Your task to perform on an android device: open app "Calculator" Image 0: 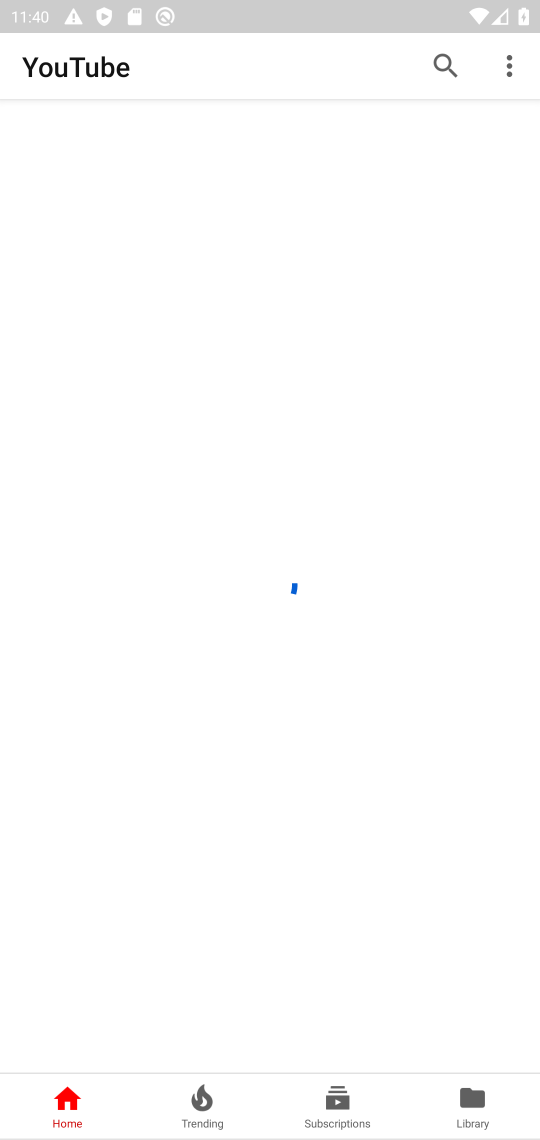
Step 0: press home button
Your task to perform on an android device: open app "Calculator" Image 1: 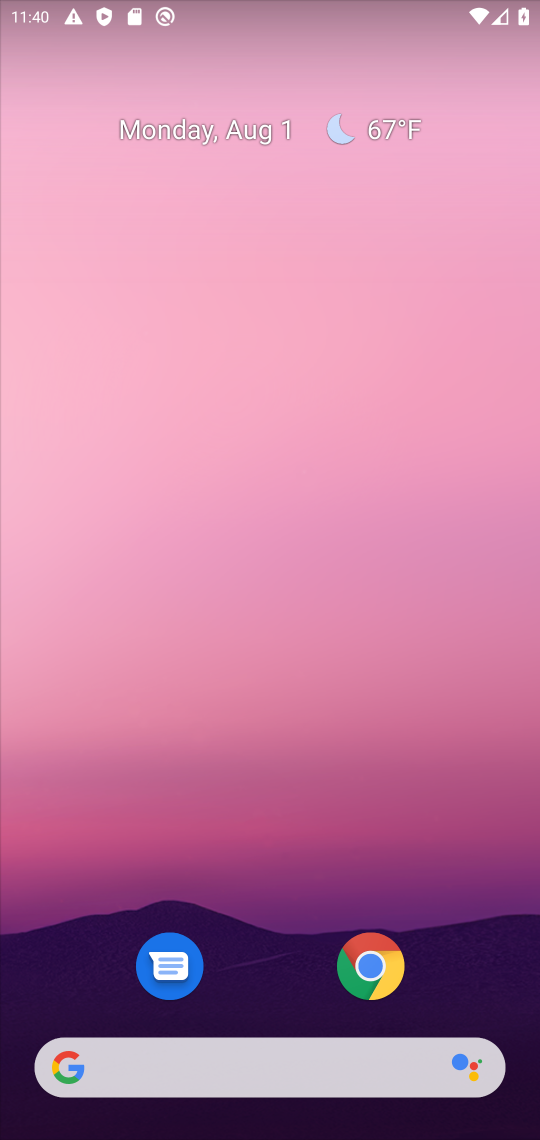
Step 1: drag from (455, 852) to (530, 15)
Your task to perform on an android device: open app "Calculator" Image 2: 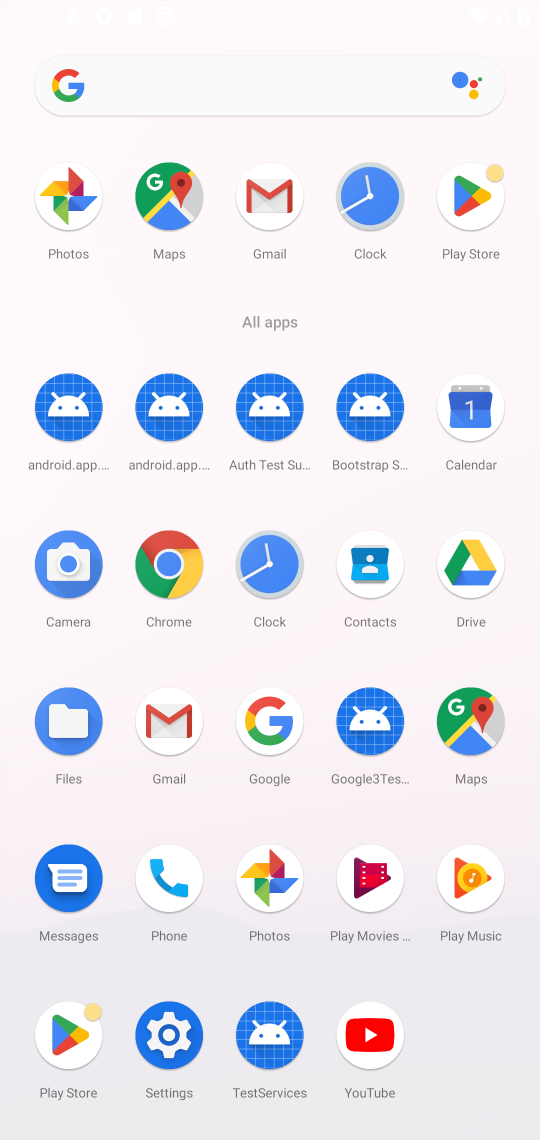
Step 2: click (463, 197)
Your task to perform on an android device: open app "Calculator" Image 3: 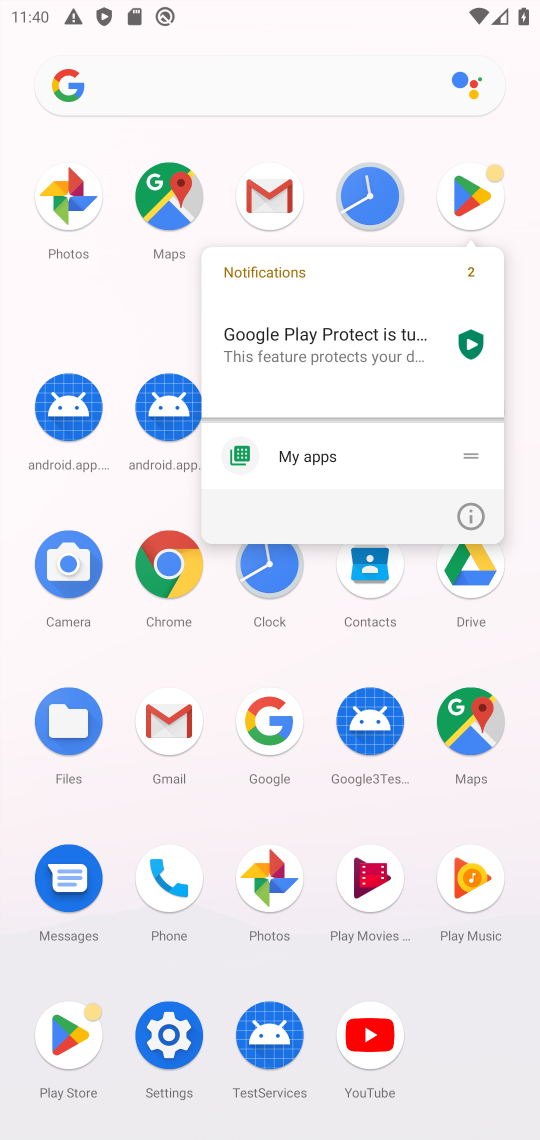
Step 3: click (493, 176)
Your task to perform on an android device: open app "Calculator" Image 4: 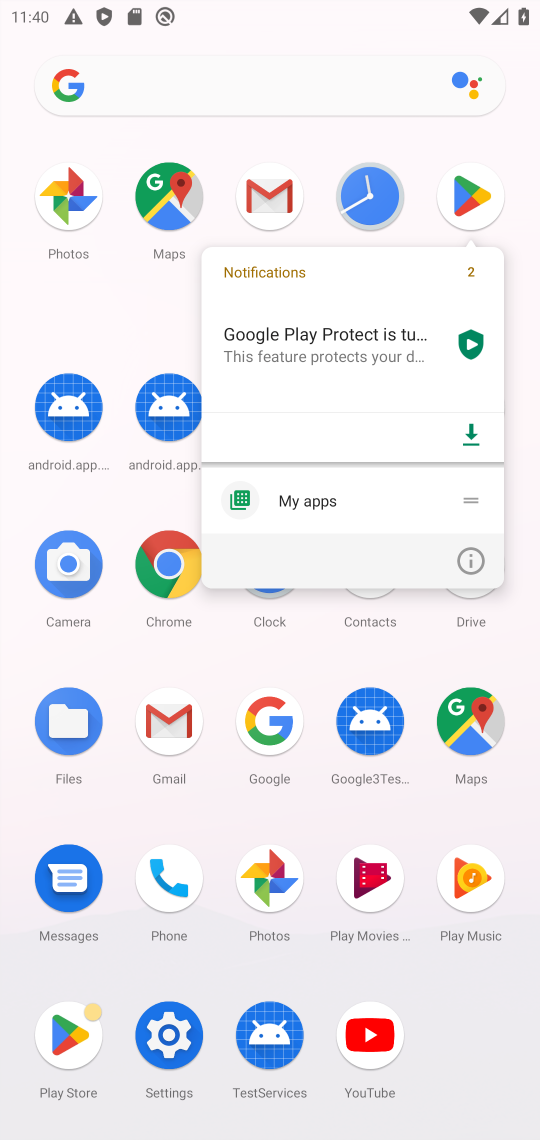
Step 4: click (473, 200)
Your task to perform on an android device: open app "Calculator" Image 5: 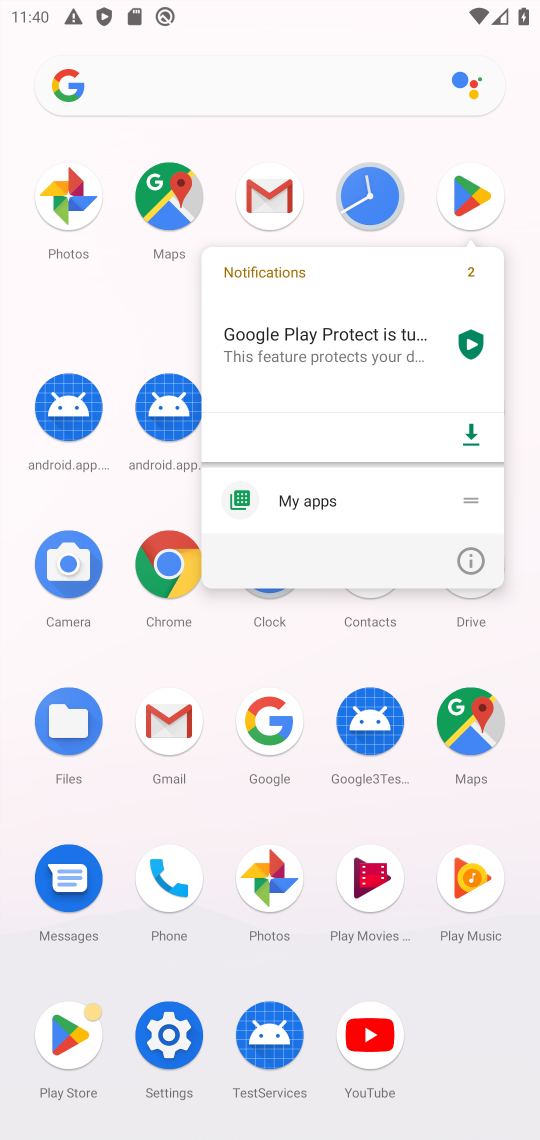
Step 5: click (66, 1041)
Your task to perform on an android device: open app "Calculator" Image 6: 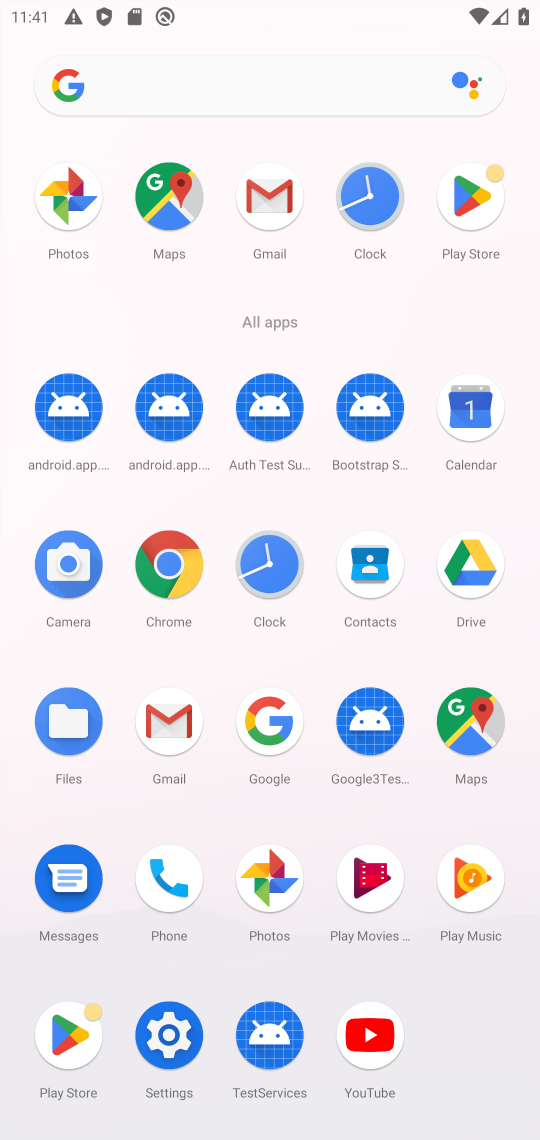
Step 6: click (73, 1037)
Your task to perform on an android device: open app "Calculator" Image 7: 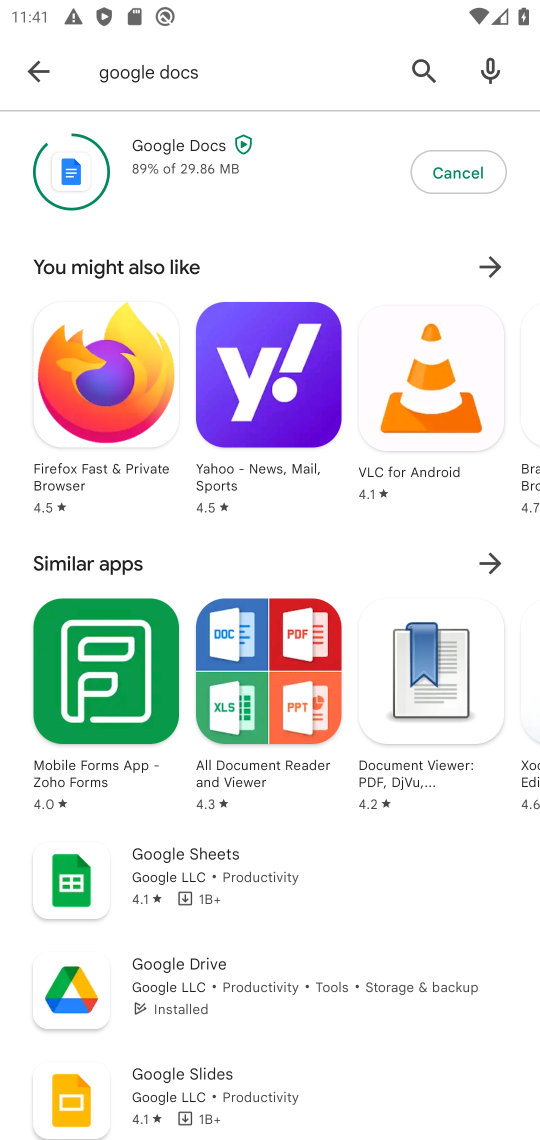
Step 7: click (415, 66)
Your task to perform on an android device: open app "Calculator" Image 8: 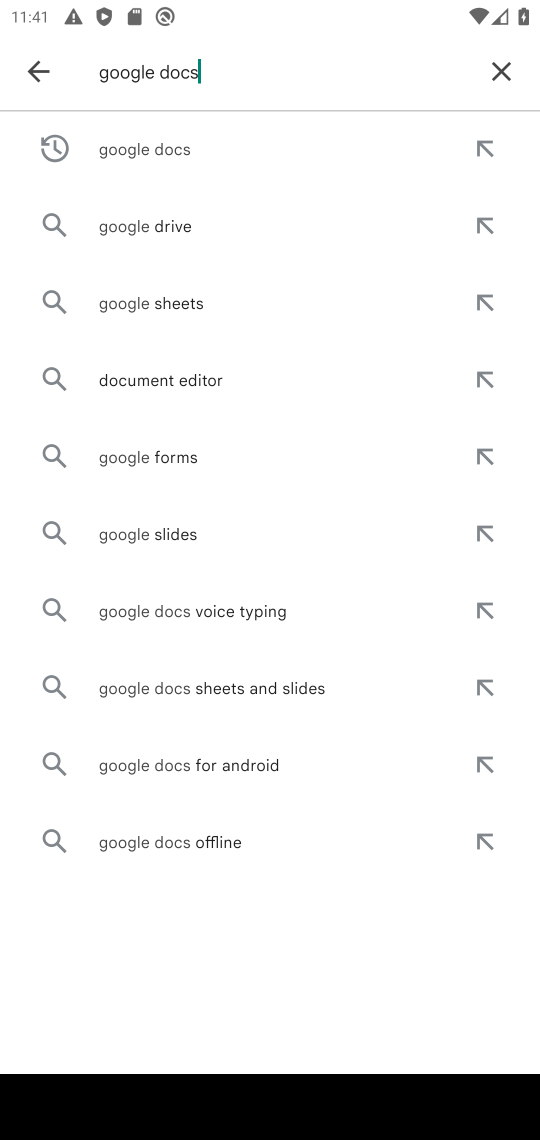
Step 8: click (500, 63)
Your task to perform on an android device: open app "Calculator" Image 9: 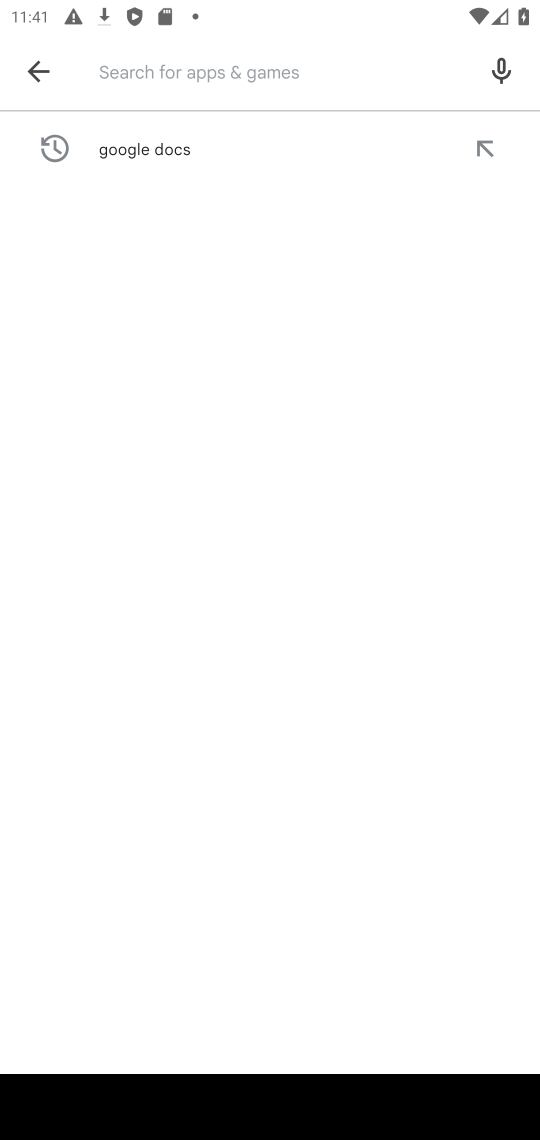
Step 9: type "calculator"
Your task to perform on an android device: open app "Calculator" Image 10: 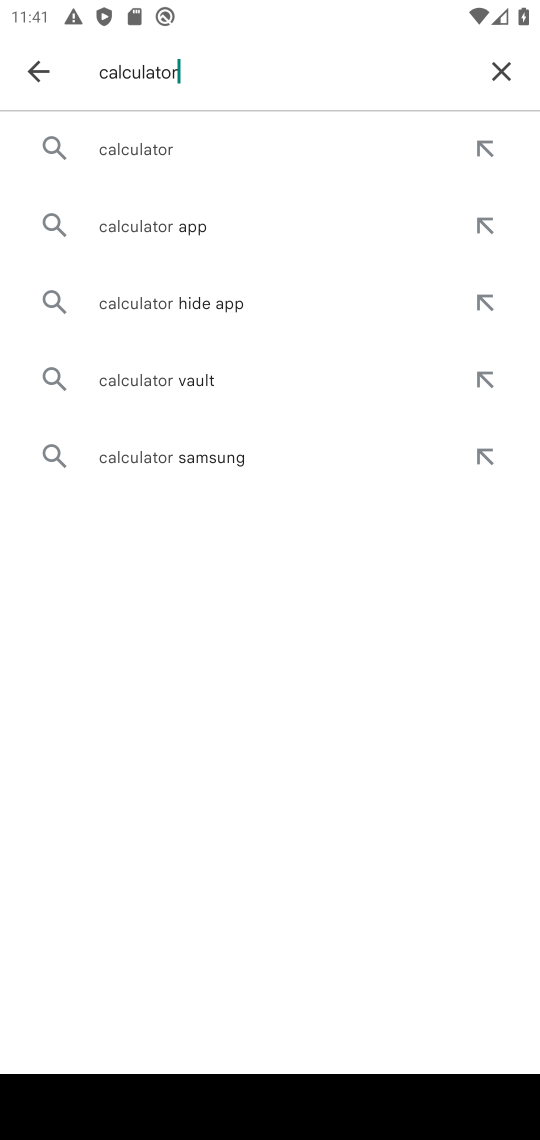
Step 10: click (162, 155)
Your task to perform on an android device: open app "Calculator" Image 11: 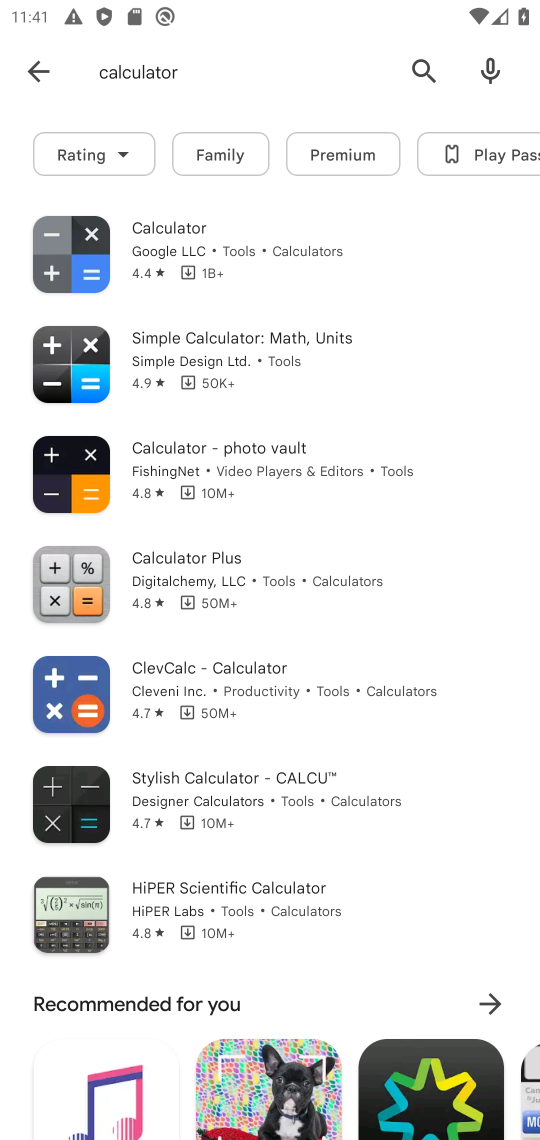
Step 11: click (228, 256)
Your task to perform on an android device: open app "Calculator" Image 12: 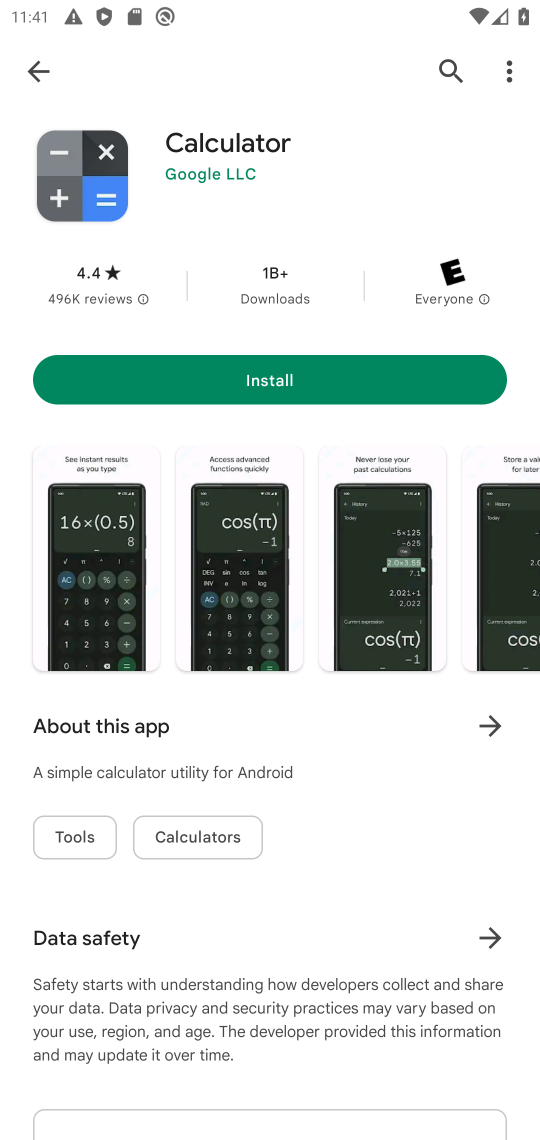
Step 12: task complete